Your task to perform on an android device: Go to Android settings Image 0: 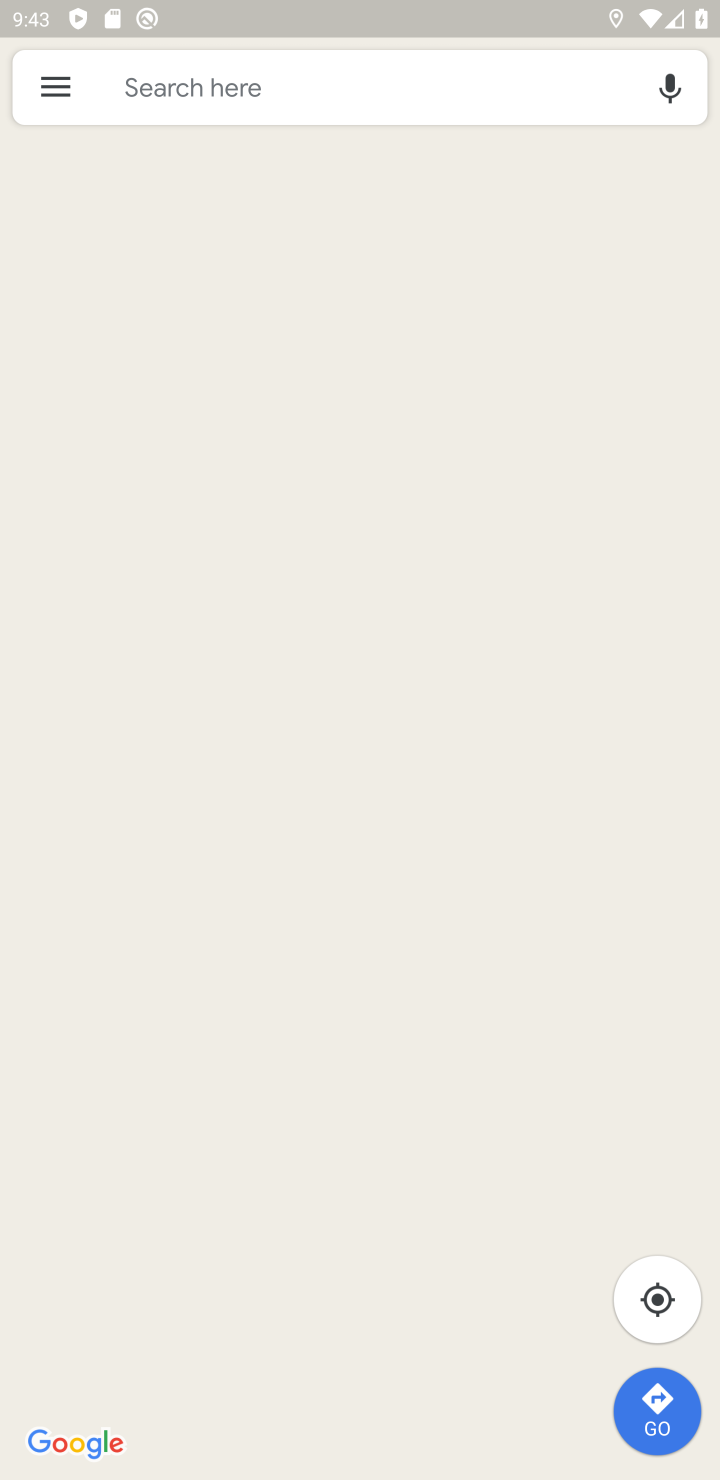
Step 0: press home button
Your task to perform on an android device: Go to Android settings Image 1: 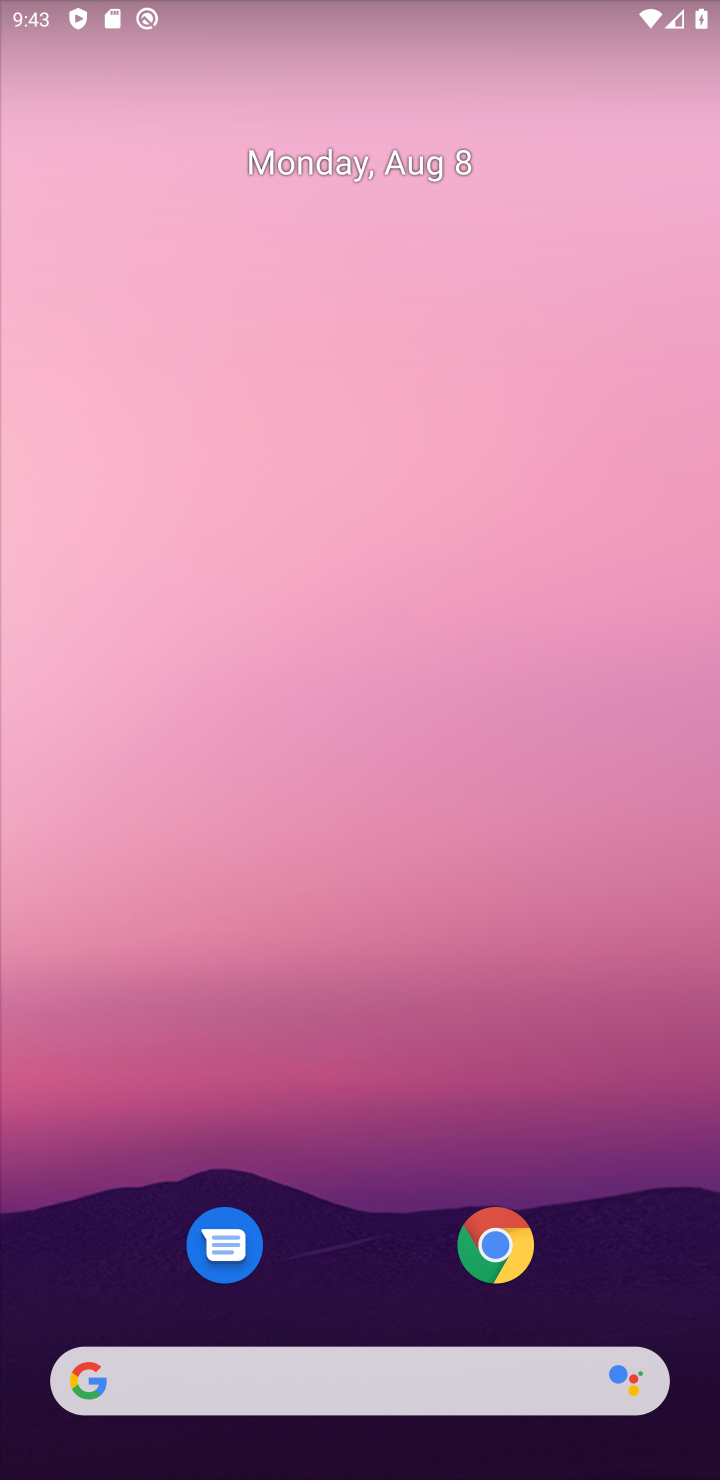
Step 1: drag from (356, 1196) to (298, 390)
Your task to perform on an android device: Go to Android settings Image 2: 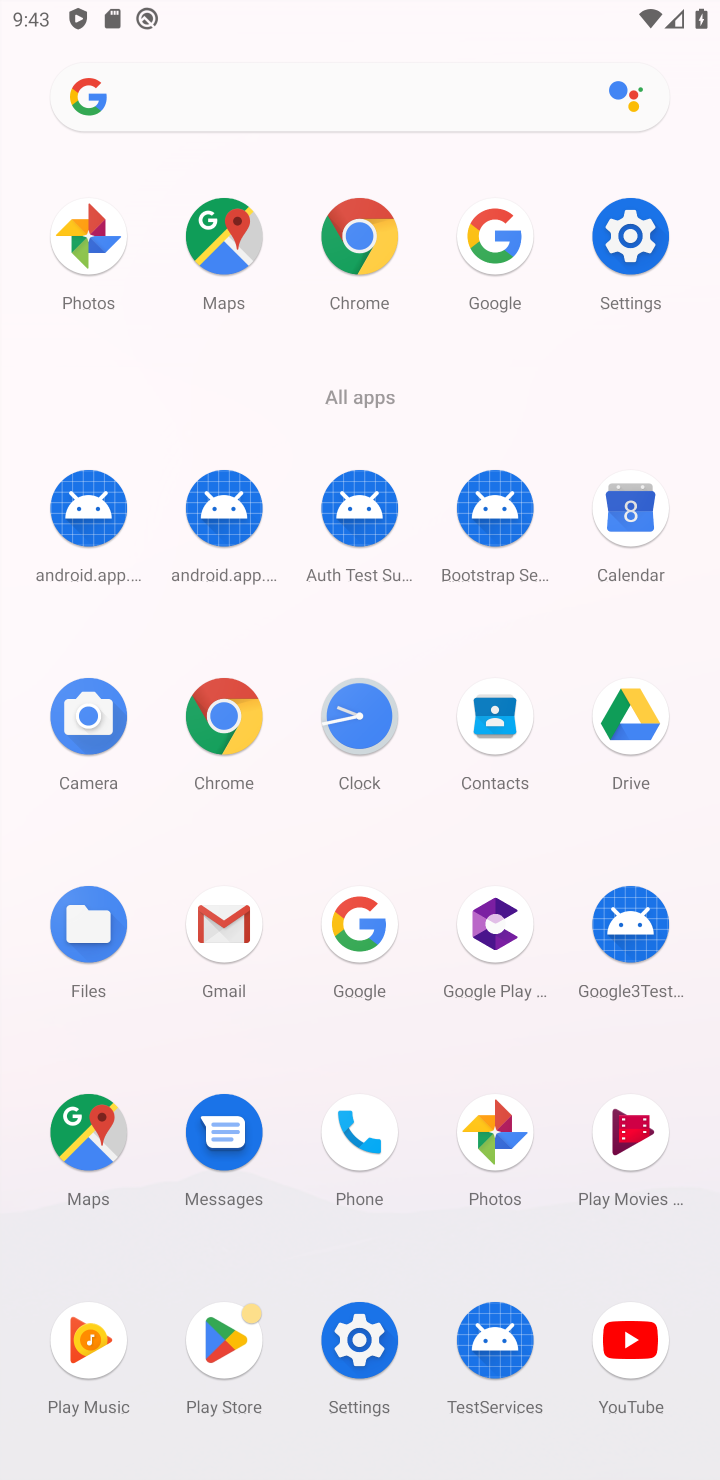
Step 2: click (630, 233)
Your task to perform on an android device: Go to Android settings Image 3: 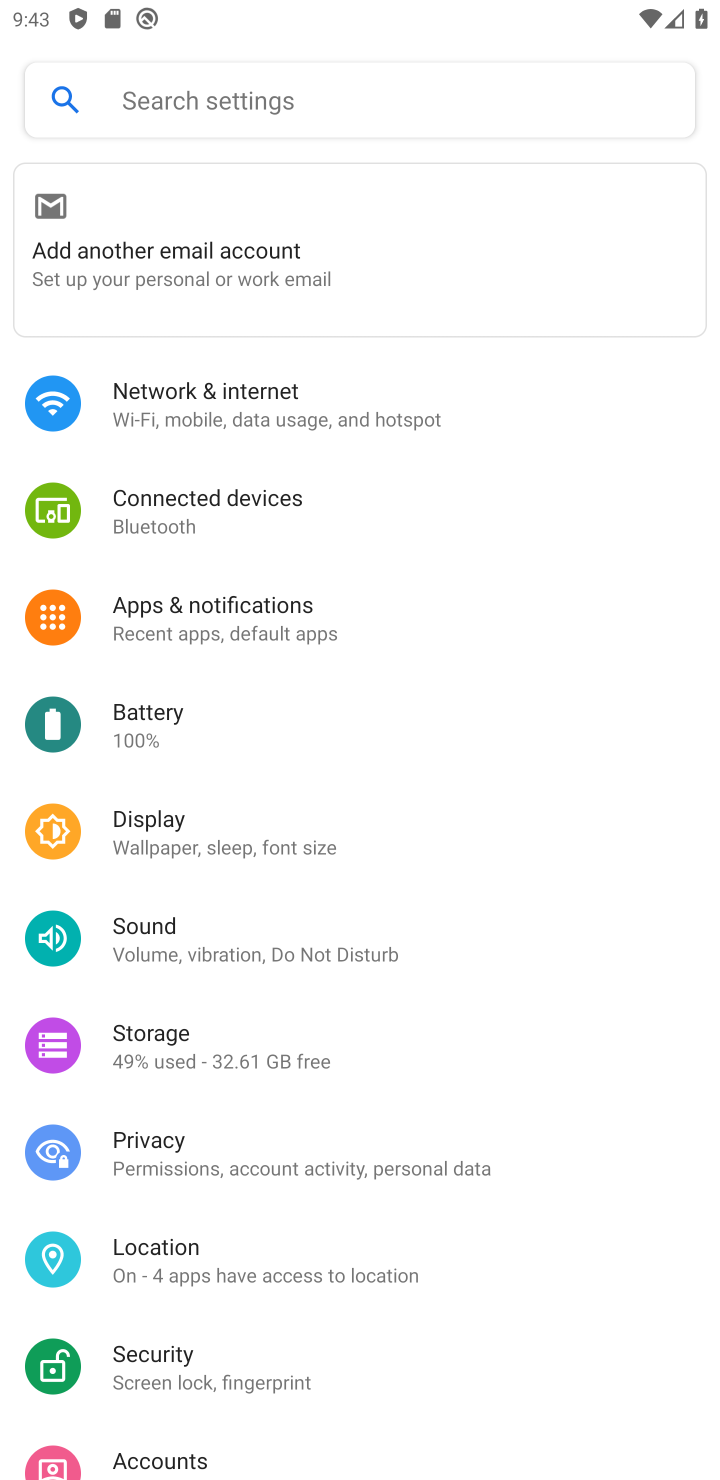
Step 3: task complete